Your task to perform on an android device: check google app version Image 0: 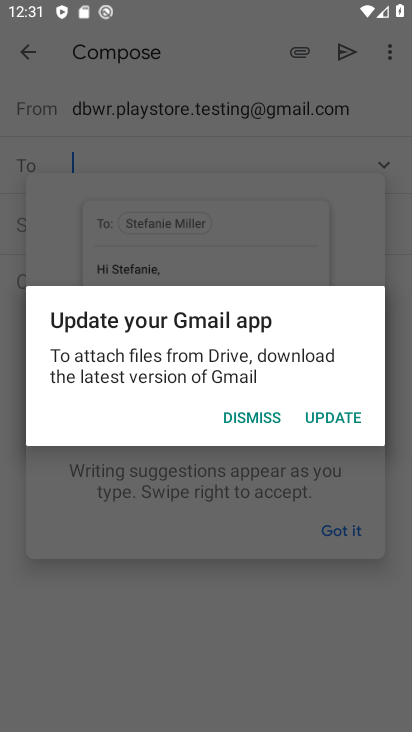
Step 0: press home button
Your task to perform on an android device: check google app version Image 1: 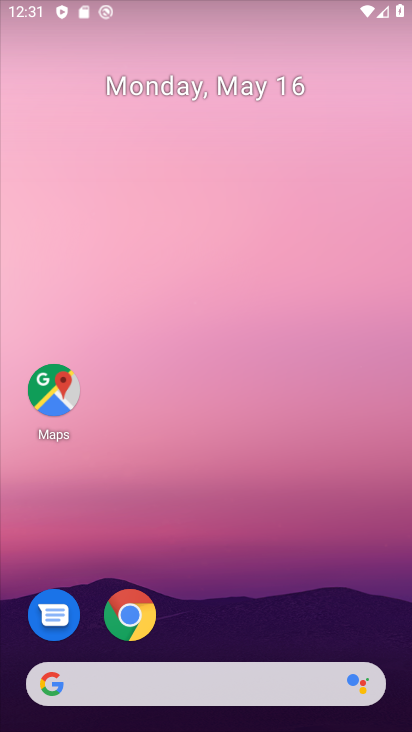
Step 1: drag from (277, 552) to (288, 109)
Your task to perform on an android device: check google app version Image 2: 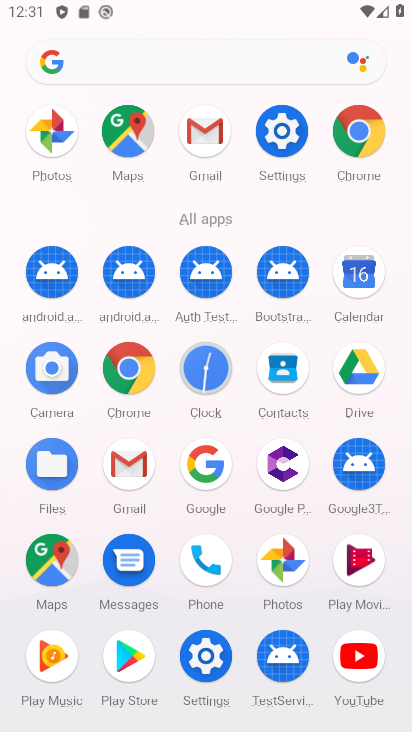
Step 2: click (211, 477)
Your task to perform on an android device: check google app version Image 3: 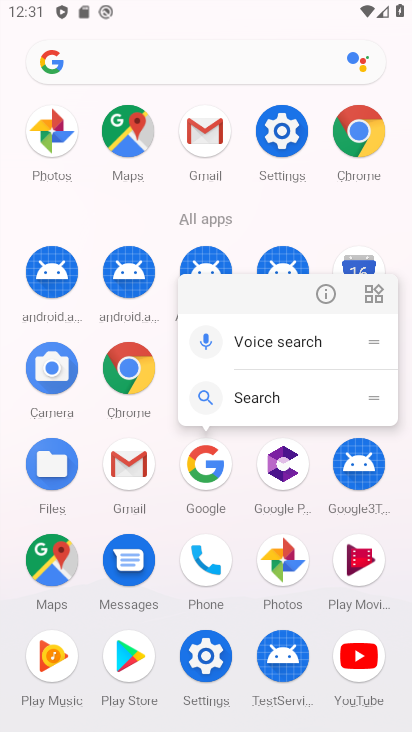
Step 3: click (327, 294)
Your task to perform on an android device: check google app version Image 4: 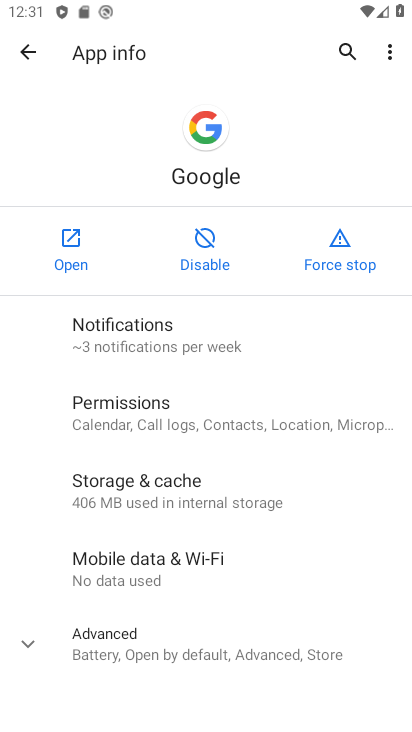
Step 4: drag from (243, 634) to (311, 164)
Your task to perform on an android device: check google app version Image 5: 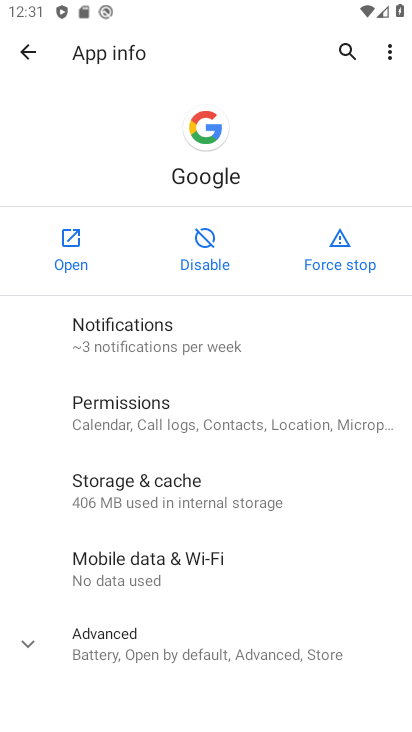
Step 5: click (129, 675)
Your task to perform on an android device: check google app version Image 6: 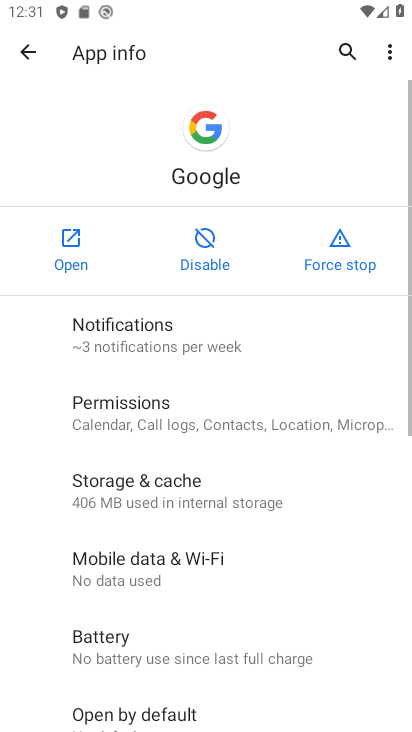
Step 6: task complete